Your task to perform on an android device: allow notifications from all sites in the chrome app Image 0: 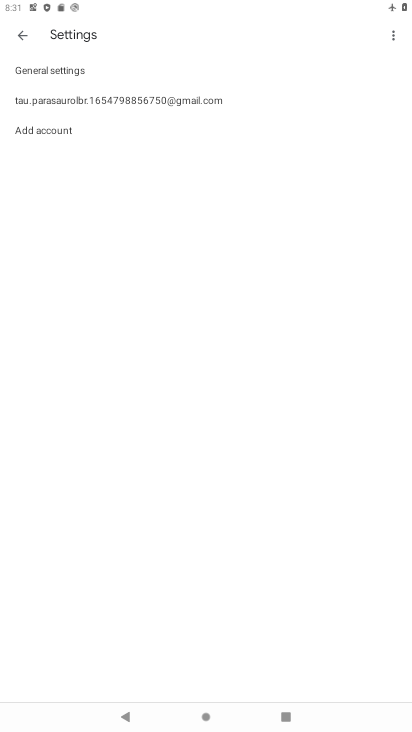
Step 0: press home button
Your task to perform on an android device: allow notifications from all sites in the chrome app Image 1: 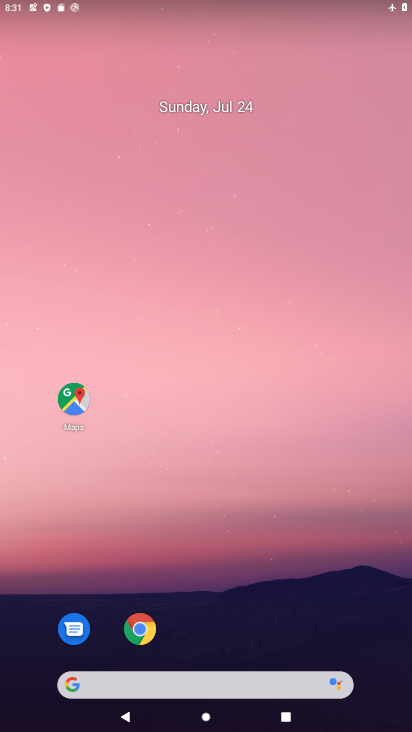
Step 1: click (145, 628)
Your task to perform on an android device: allow notifications from all sites in the chrome app Image 2: 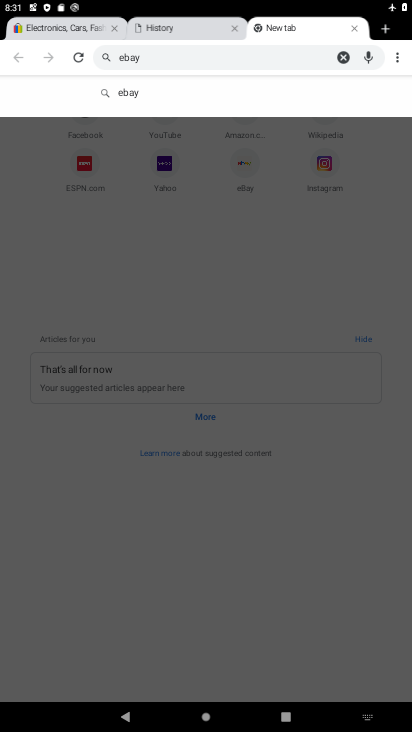
Step 2: click (281, 326)
Your task to perform on an android device: allow notifications from all sites in the chrome app Image 3: 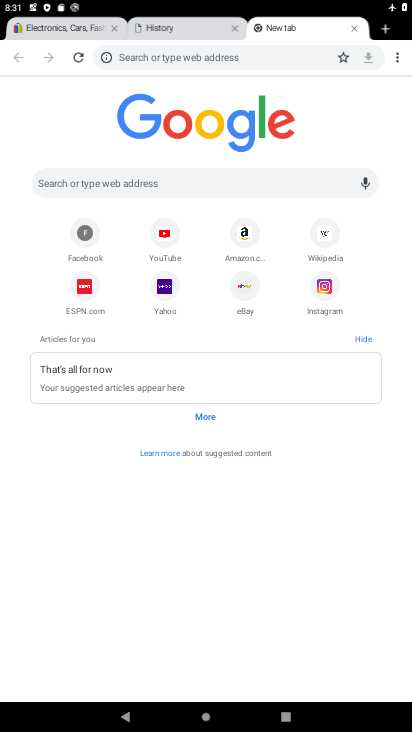
Step 3: click (400, 61)
Your task to perform on an android device: allow notifications from all sites in the chrome app Image 4: 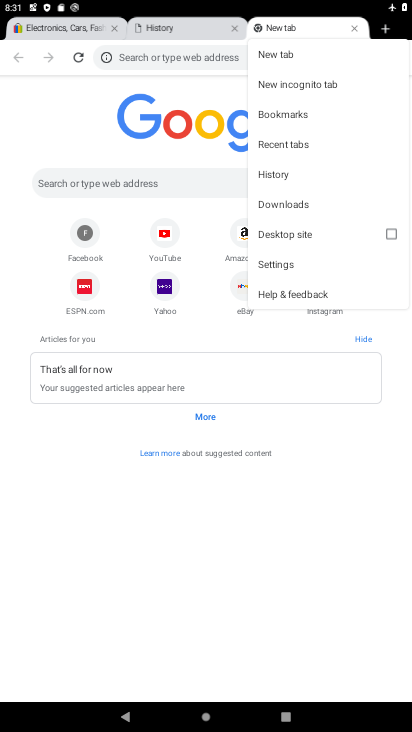
Step 4: click (276, 266)
Your task to perform on an android device: allow notifications from all sites in the chrome app Image 5: 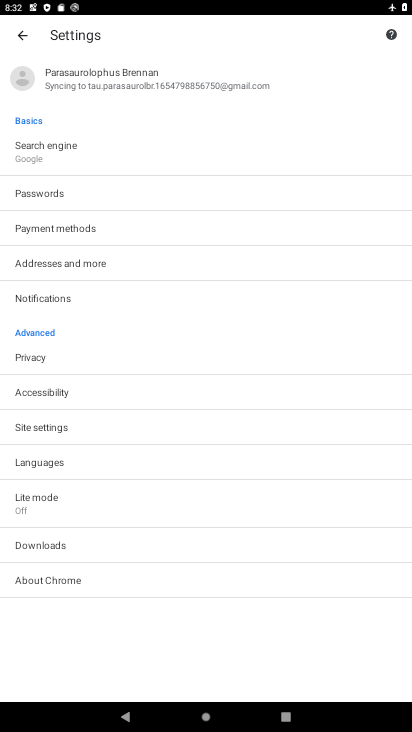
Step 5: click (48, 298)
Your task to perform on an android device: allow notifications from all sites in the chrome app Image 6: 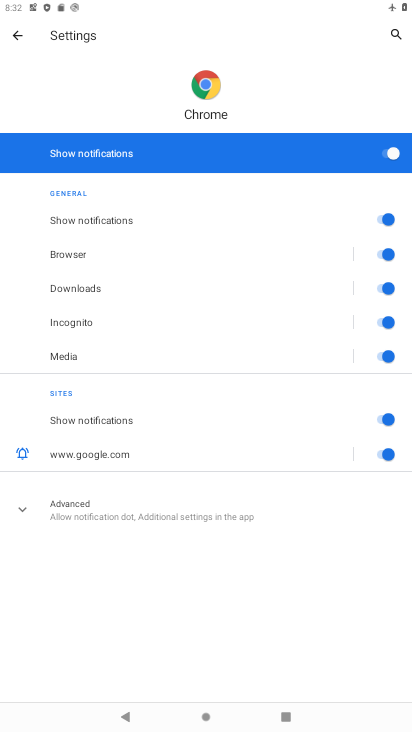
Step 6: click (131, 517)
Your task to perform on an android device: allow notifications from all sites in the chrome app Image 7: 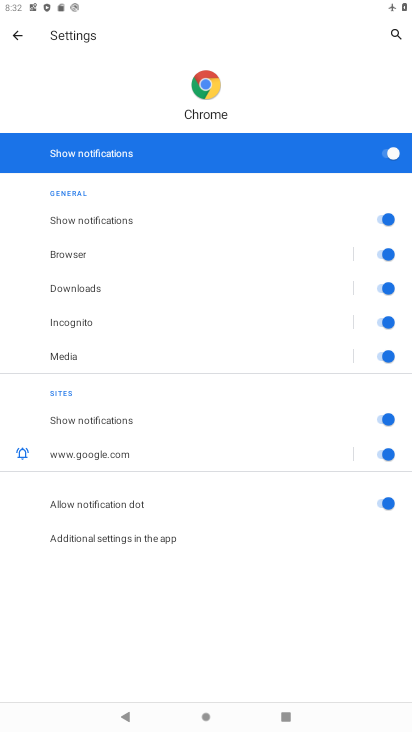
Step 7: task complete